Your task to perform on an android device: remove spam from my inbox in the gmail app Image 0: 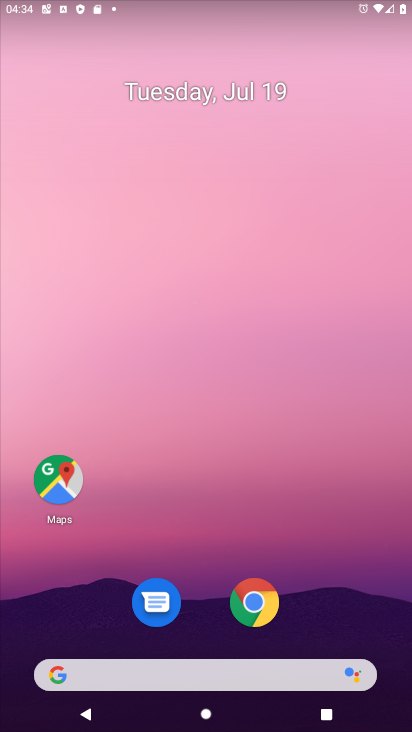
Step 0: drag from (192, 644) to (148, 10)
Your task to perform on an android device: remove spam from my inbox in the gmail app Image 1: 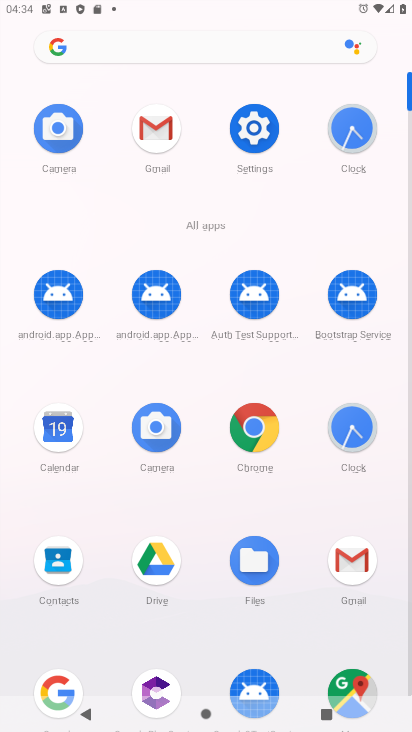
Step 1: click (145, 118)
Your task to perform on an android device: remove spam from my inbox in the gmail app Image 2: 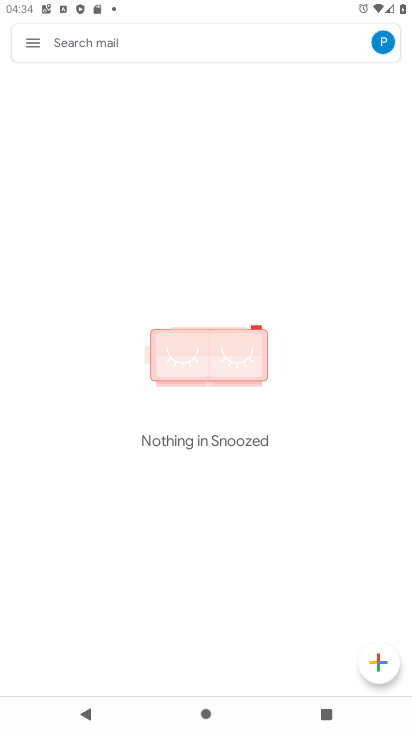
Step 2: click (43, 51)
Your task to perform on an android device: remove spam from my inbox in the gmail app Image 3: 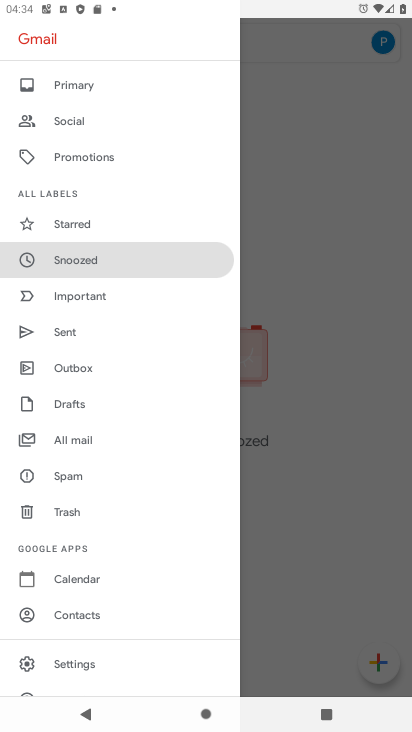
Step 3: click (104, 475)
Your task to perform on an android device: remove spam from my inbox in the gmail app Image 4: 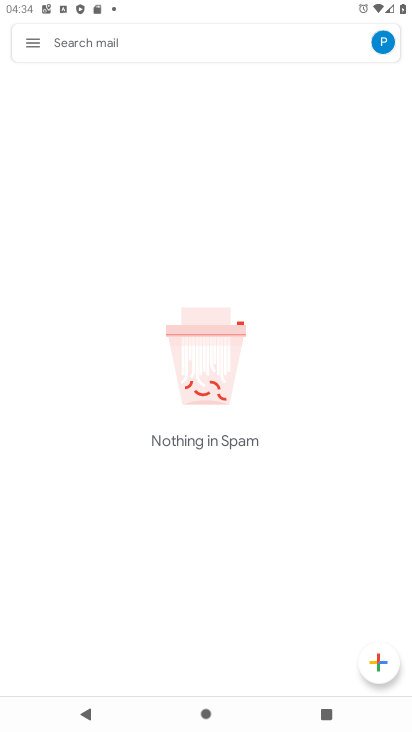
Step 4: task complete